Your task to perform on an android device: Show me the alarms in the clock app Image 0: 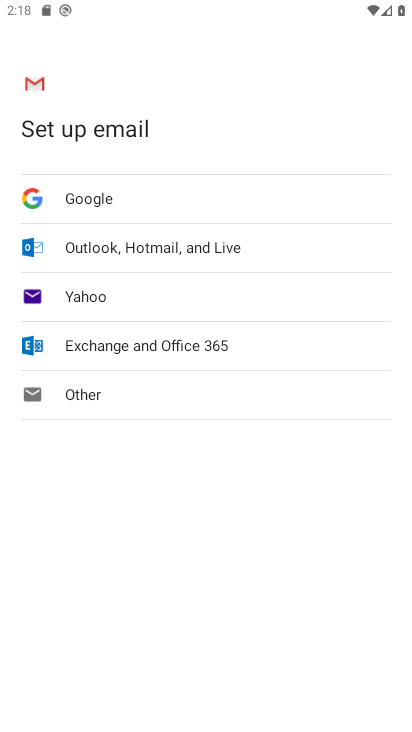
Step 0: drag from (205, 613) to (215, 14)
Your task to perform on an android device: Show me the alarms in the clock app Image 1: 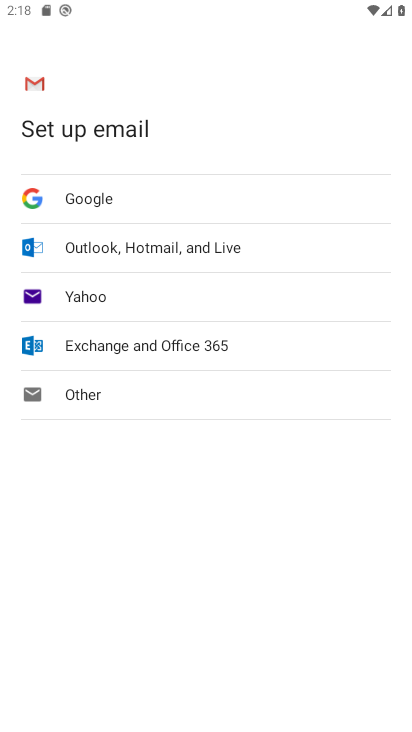
Step 1: press home button
Your task to perform on an android device: Show me the alarms in the clock app Image 2: 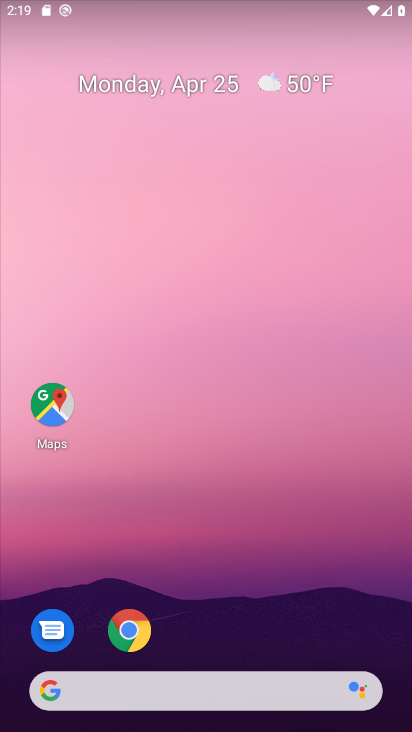
Step 2: drag from (213, 602) to (181, 204)
Your task to perform on an android device: Show me the alarms in the clock app Image 3: 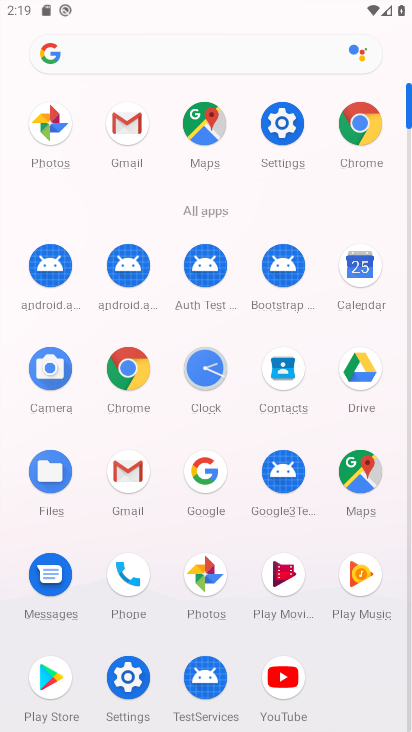
Step 3: click (211, 371)
Your task to perform on an android device: Show me the alarms in the clock app Image 4: 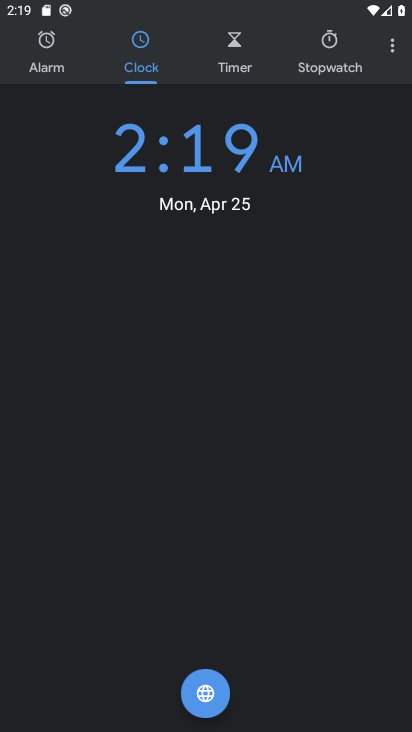
Step 4: click (51, 33)
Your task to perform on an android device: Show me the alarms in the clock app Image 5: 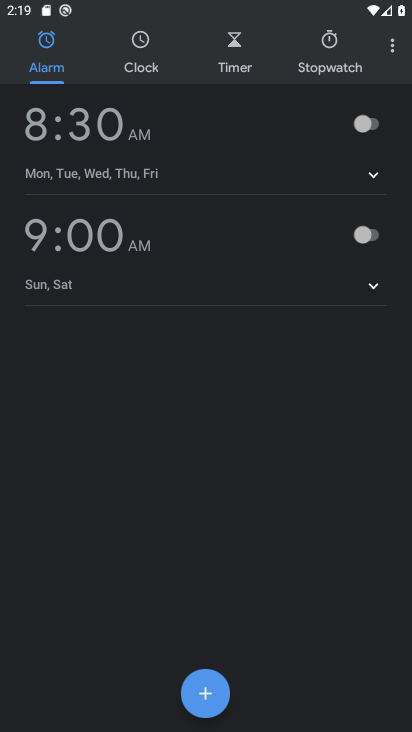
Step 5: click (371, 238)
Your task to perform on an android device: Show me the alarms in the clock app Image 6: 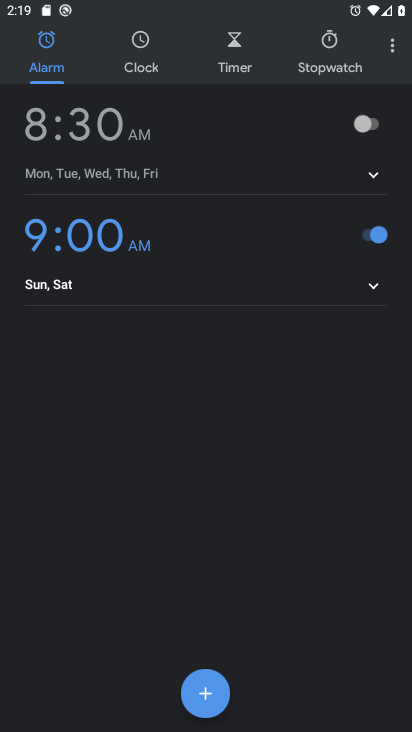
Step 6: task complete